Your task to perform on an android device: Open Amazon Image 0: 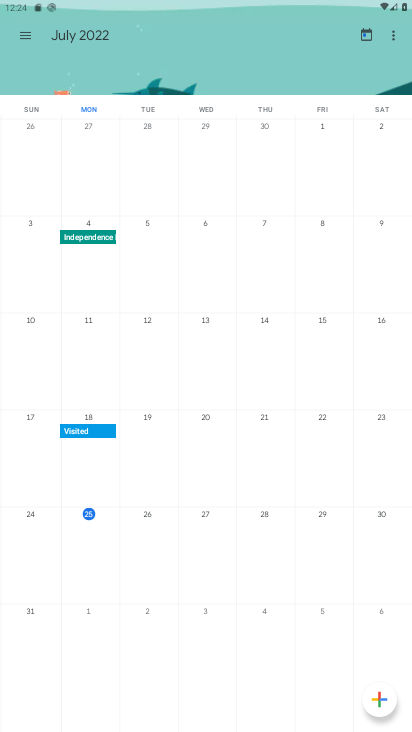
Step 0: press home button
Your task to perform on an android device: Open Amazon Image 1: 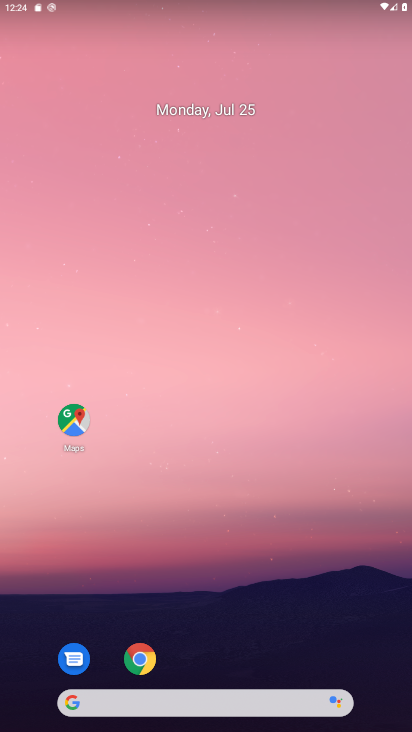
Step 1: click (139, 659)
Your task to perform on an android device: Open Amazon Image 2: 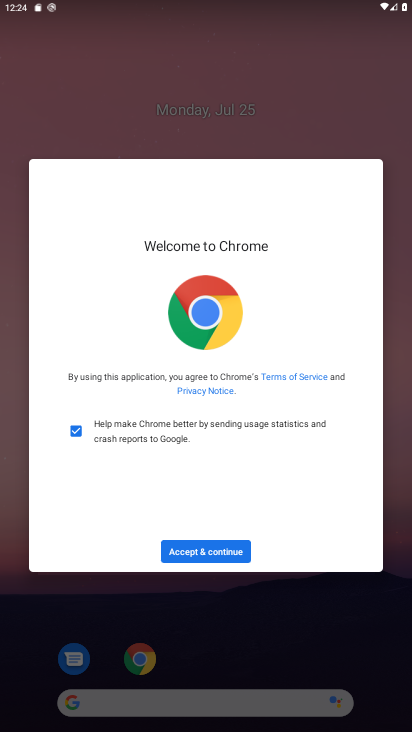
Step 2: click (201, 546)
Your task to perform on an android device: Open Amazon Image 3: 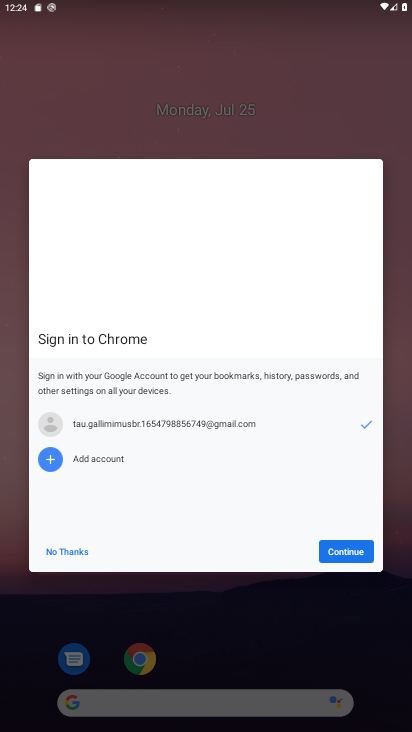
Step 3: click (342, 544)
Your task to perform on an android device: Open Amazon Image 4: 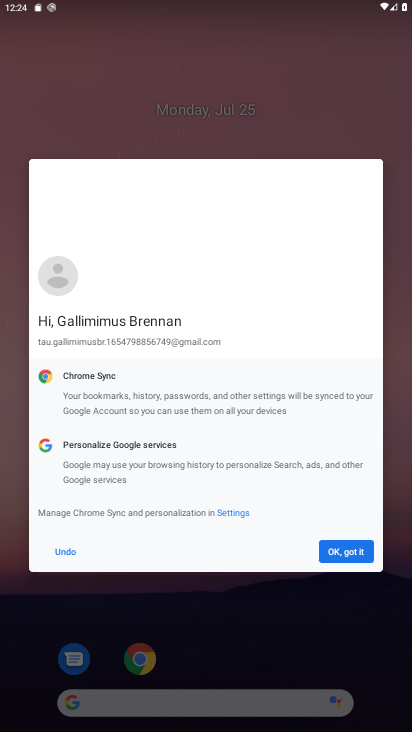
Step 4: click (346, 552)
Your task to perform on an android device: Open Amazon Image 5: 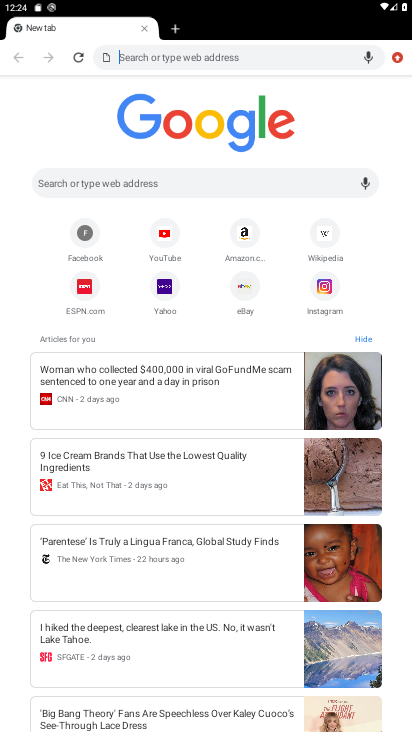
Step 5: click (242, 231)
Your task to perform on an android device: Open Amazon Image 6: 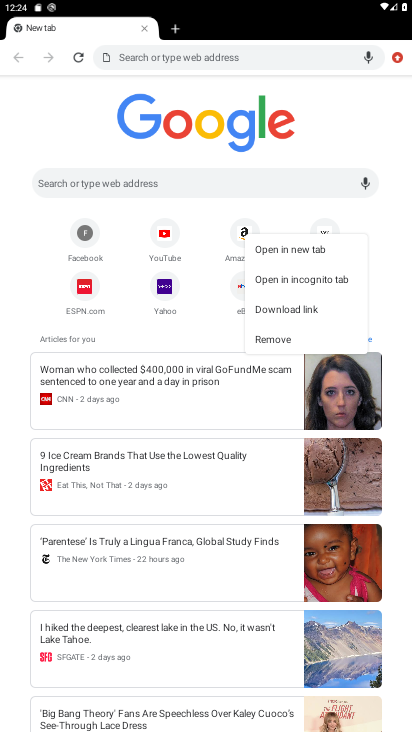
Step 6: click (231, 238)
Your task to perform on an android device: Open Amazon Image 7: 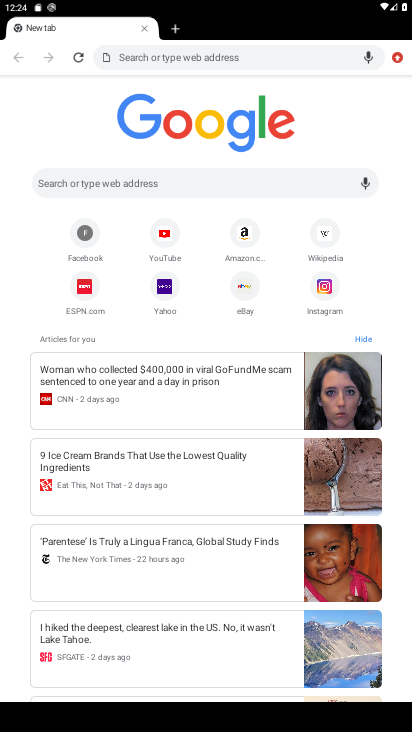
Step 7: click (245, 233)
Your task to perform on an android device: Open Amazon Image 8: 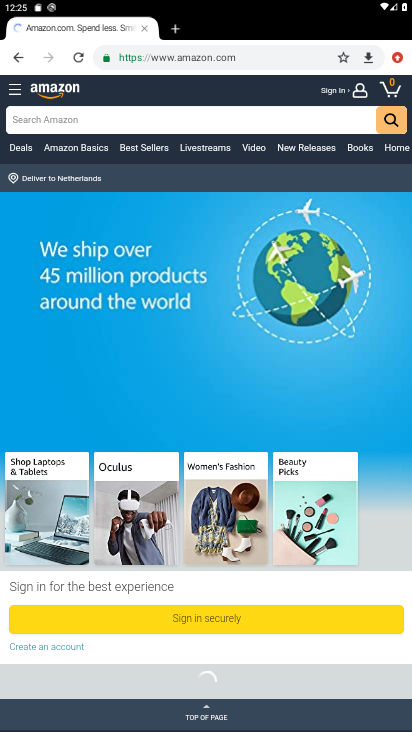
Step 8: task complete